Your task to perform on an android device: turn off priority inbox in the gmail app Image 0: 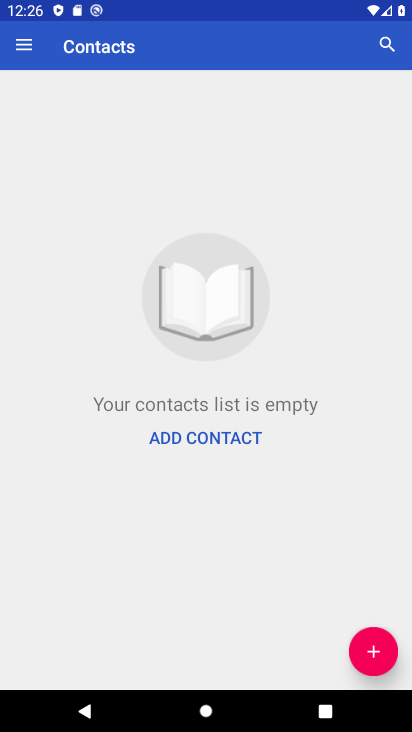
Step 0: press home button
Your task to perform on an android device: turn off priority inbox in the gmail app Image 1: 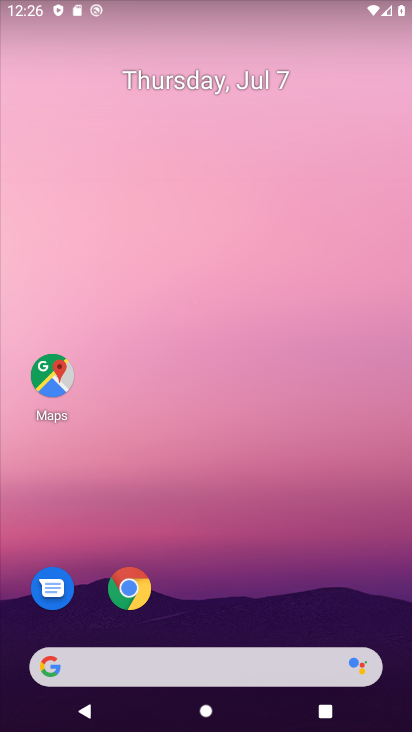
Step 1: drag from (307, 654) to (402, 134)
Your task to perform on an android device: turn off priority inbox in the gmail app Image 2: 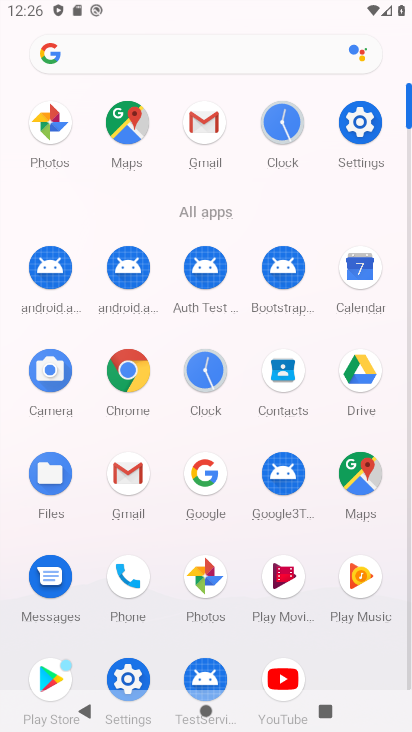
Step 2: click (132, 476)
Your task to perform on an android device: turn off priority inbox in the gmail app Image 3: 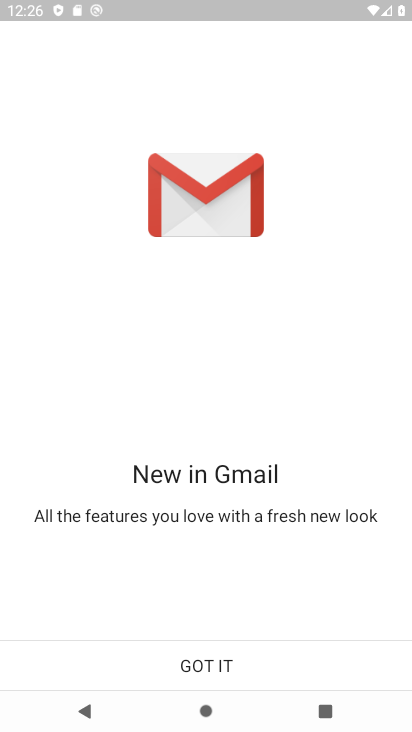
Step 3: click (206, 667)
Your task to perform on an android device: turn off priority inbox in the gmail app Image 4: 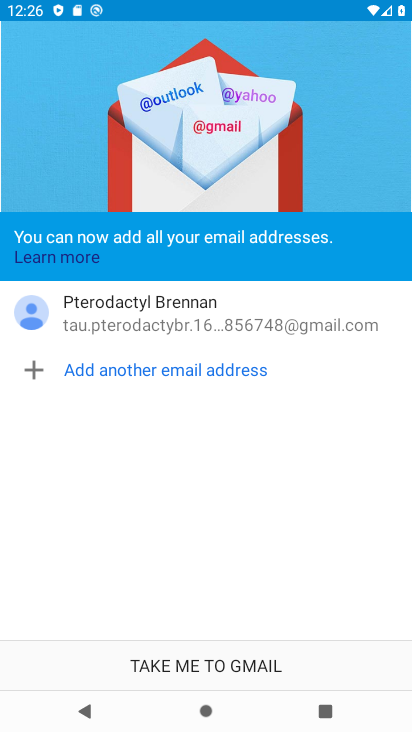
Step 4: click (216, 665)
Your task to perform on an android device: turn off priority inbox in the gmail app Image 5: 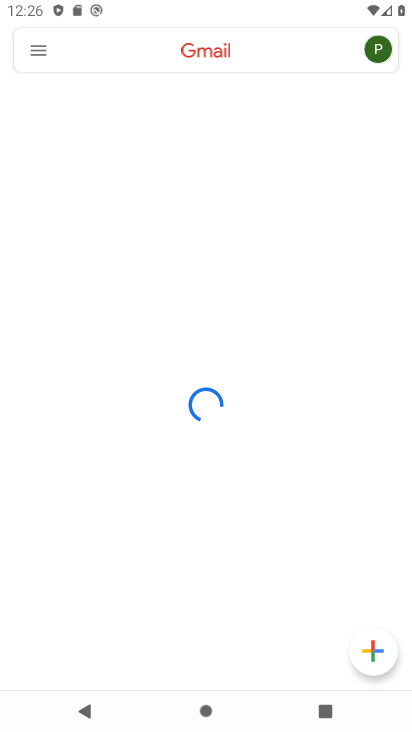
Step 5: click (44, 50)
Your task to perform on an android device: turn off priority inbox in the gmail app Image 6: 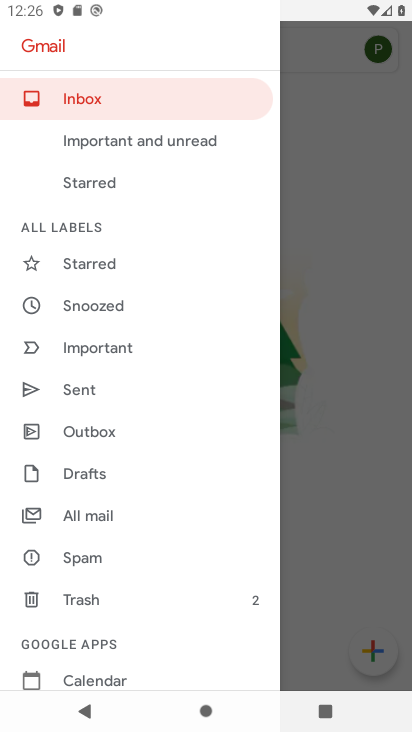
Step 6: drag from (122, 665) to (169, 107)
Your task to perform on an android device: turn off priority inbox in the gmail app Image 7: 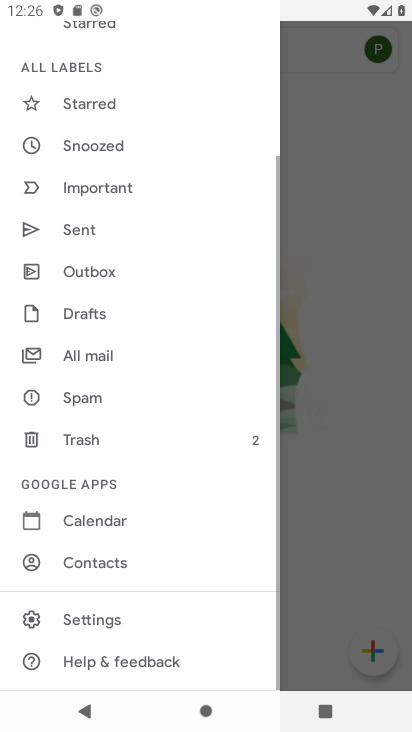
Step 7: click (136, 623)
Your task to perform on an android device: turn off priority inbox in the gmail app Image 8: 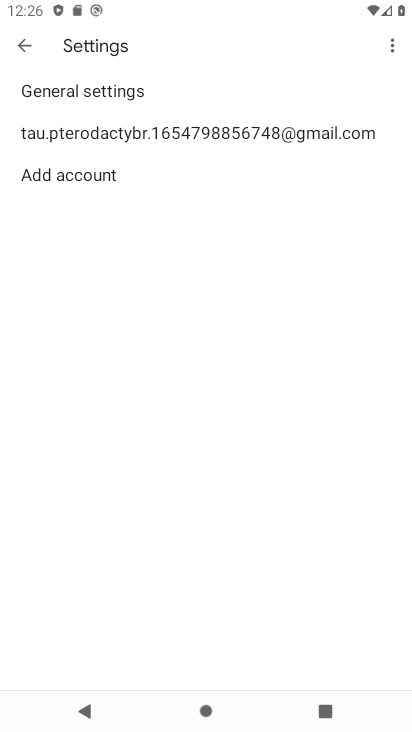
Step 8: click (157, 129)
Your task to perform on an android device: turn off priority inbox in the gmail app Image 9: 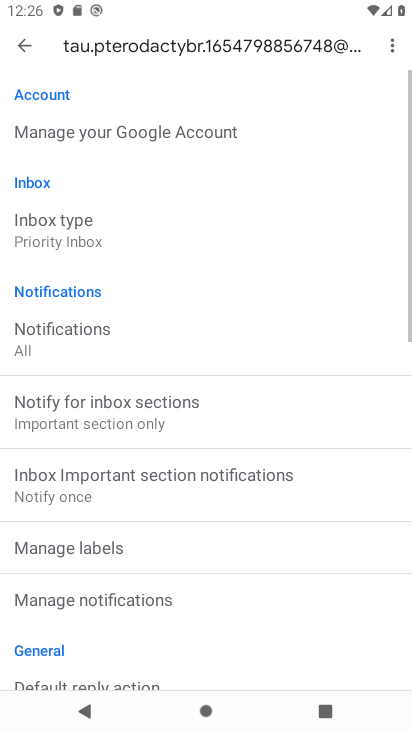
Step 9: click (87, 216)
Your task to perform on an android device: turn off priority inbox in the gmail app Image 10: 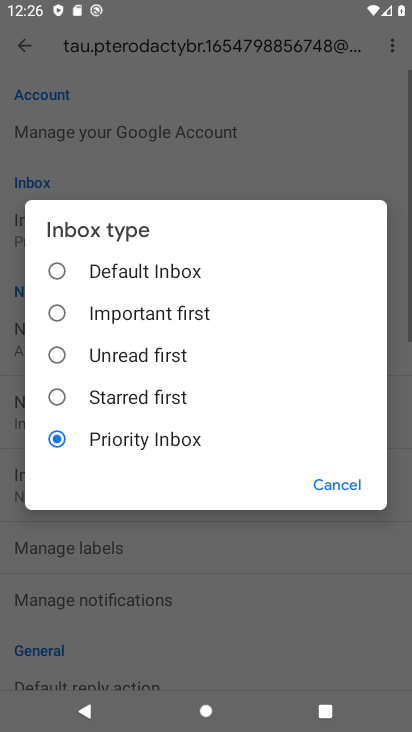
Step 10: click (101, 388)
Your task to perform on an android device: turn off priority inbox in the gmail app Image 11: 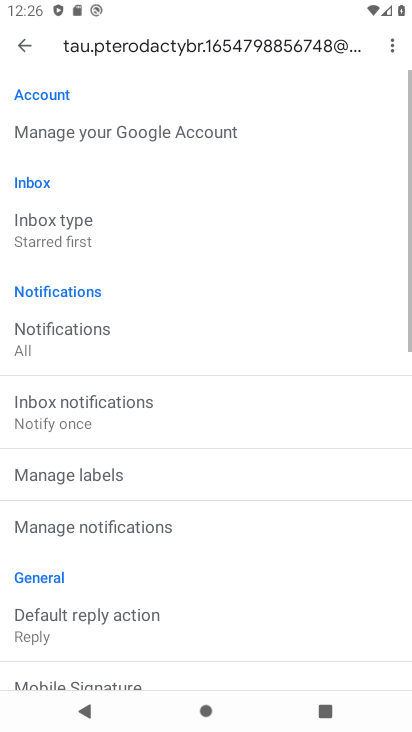
Step 11: task complete